Your task to perform on an android device: What's on my calendar tomorrow? Image 0: 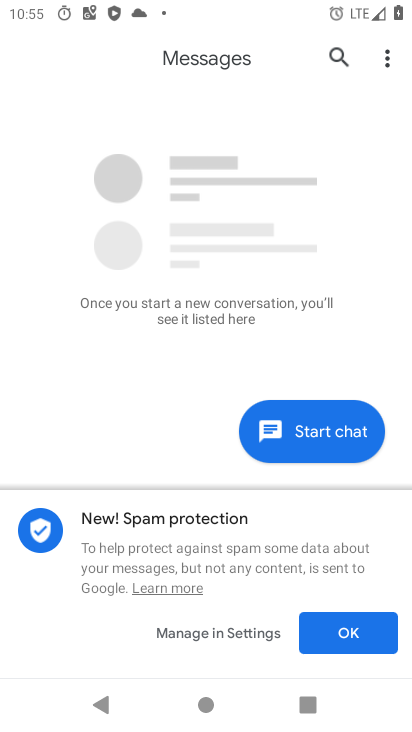
Step 0: press home button
Your task to perform on an android device: What's on my calendar tomorrow? Image 1: 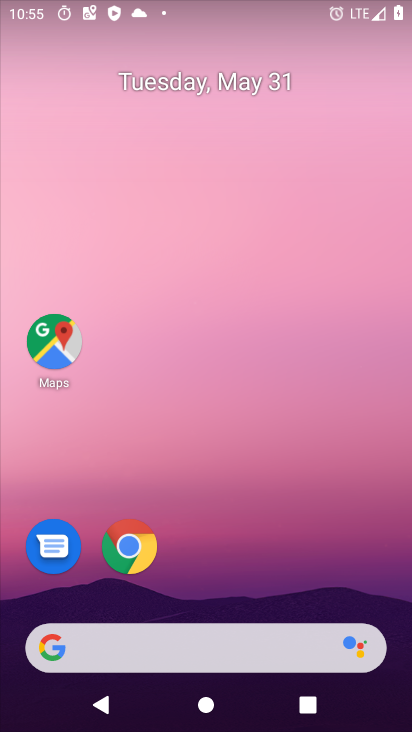
Step 1: drag from (235, 558) to (213, 166)
Your task to perform on an android device: What's on my calendar tomorrow? Image 2: 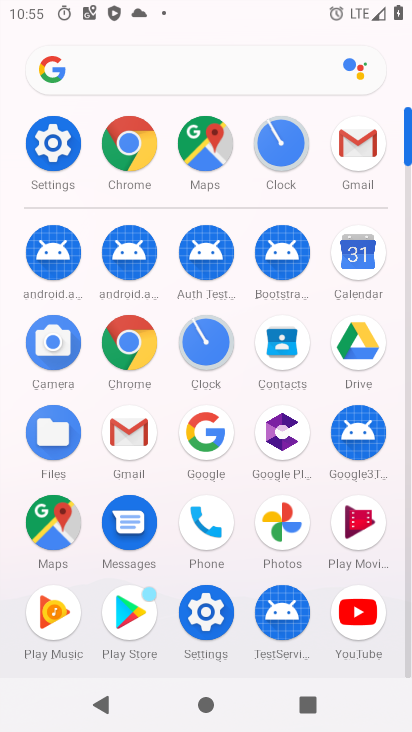
Step 2: click (349, 265)
Your task to perform on an android device: What's on my calendar tomorrow? Image 3: 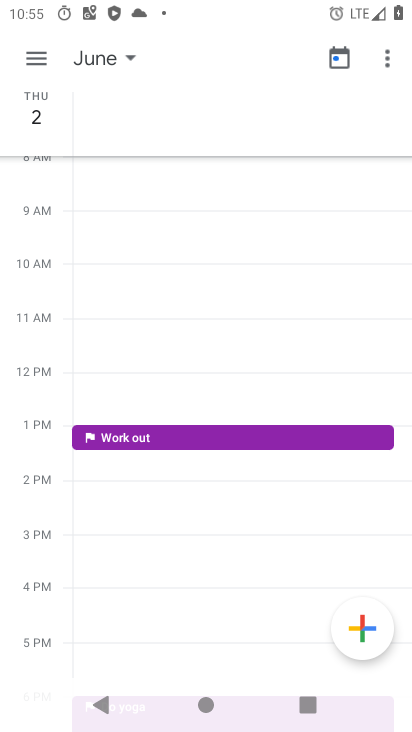
Step 3: click (32, 69)
Your task to perform on an android device: What's on my calendar tomorrow? Image 4: 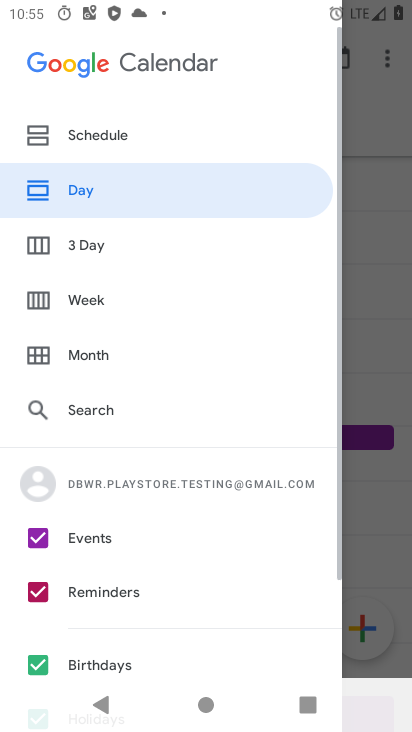
Step 4: click (102, 341)
Your task to perform on an android device: What's on my calendar tomorrow? Image 5: 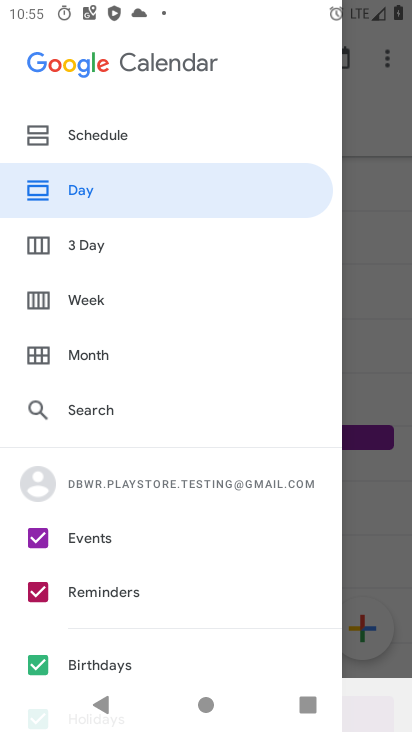
Step 5: click (103, 358)
Your task to perform on an android device: What's on my calendar tomorrow? Image 6: 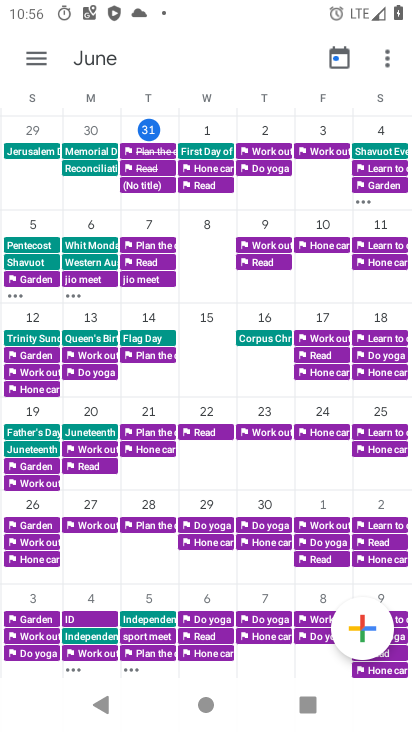
Step 6: click (191, 155)
Your task to perform on an android device: What's on my calendar tomorrow? Image 7: 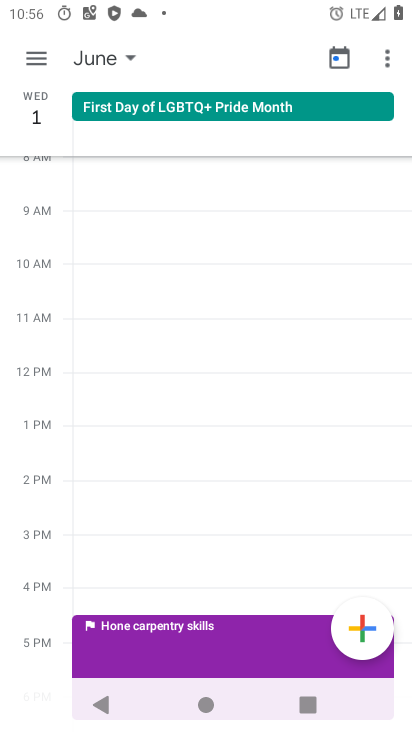
Step 7: click (29, 67)
Your task to perform on an android device: What's on my calendar tomorrow? Image 8: 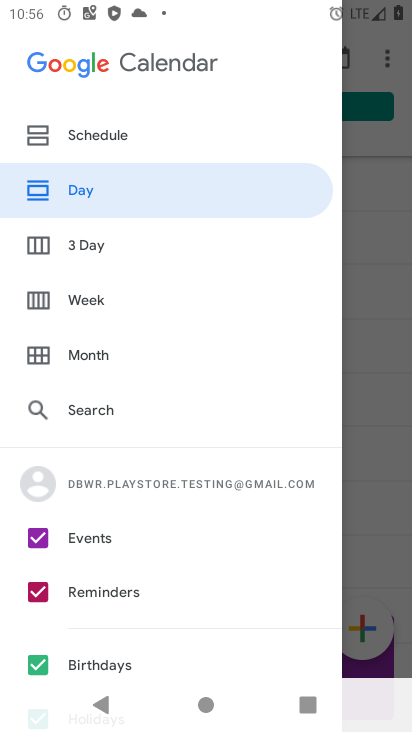
Step 8: click (118, 356)
Your task to perform on an android device: What's on my calendar tomorrow? Image 9: 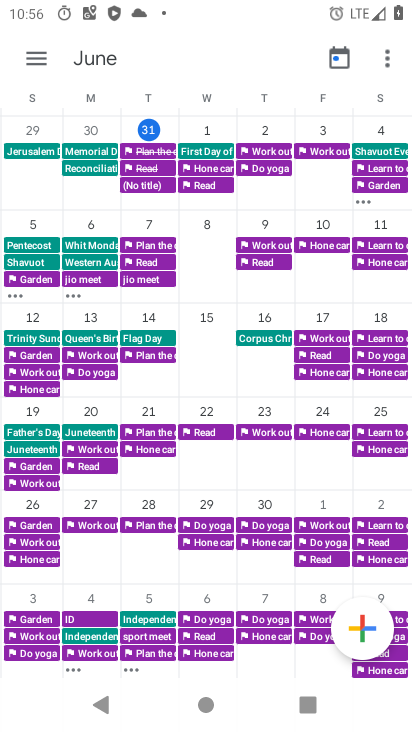
Step 9: click (248, 123)
Your task to perform on an android device: What's on my calendar tomorrow? Image 10: 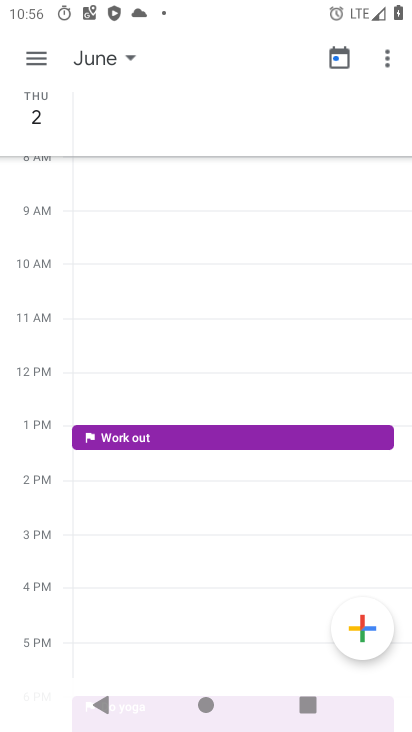
Step 10: task complete